Your task to perform on an android device: Is it going to rain this weekend? Image 0: 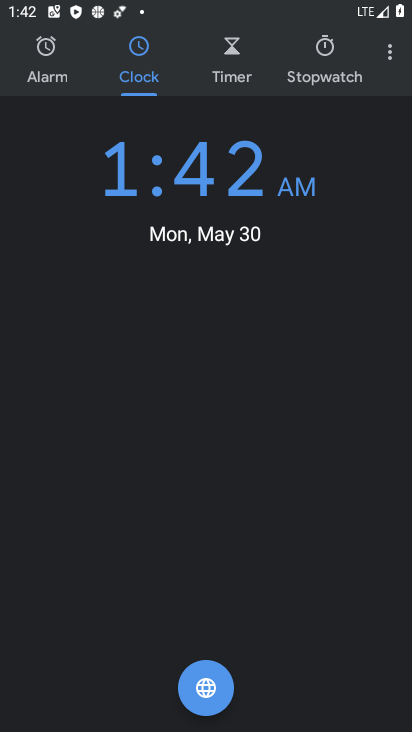
Step 0: press home button
Your task to perform on an android device: Is it going to rain this weekend? Image 1: 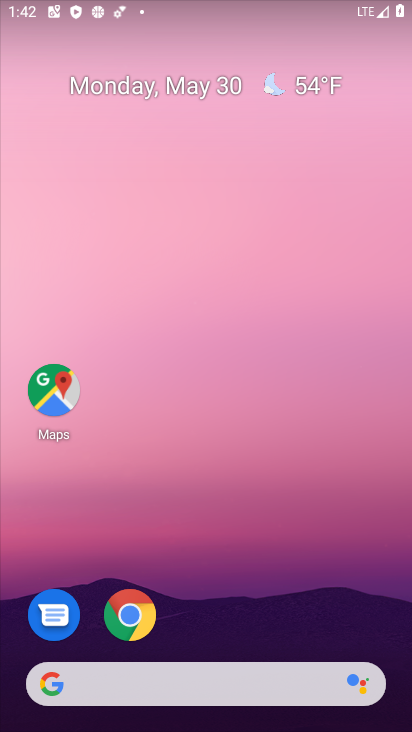
Step 1: click (324, 79)
Your task to perform on an android device: Is it going to rain this weekend? Image 2: 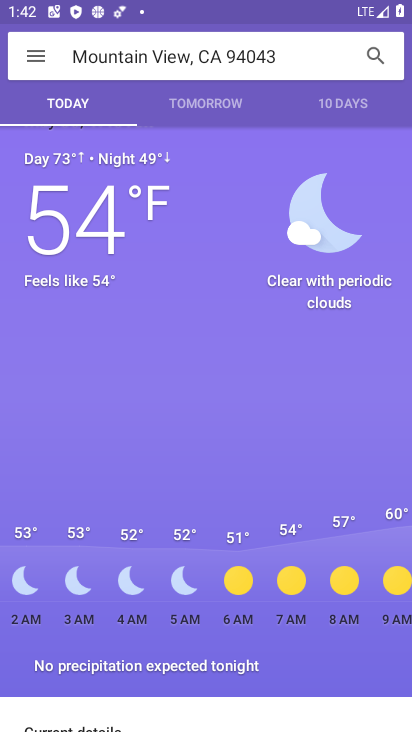
Step 2: click (340, 117)
Your task to perform on an android device: Is it going to rain this weekend? Image 3: 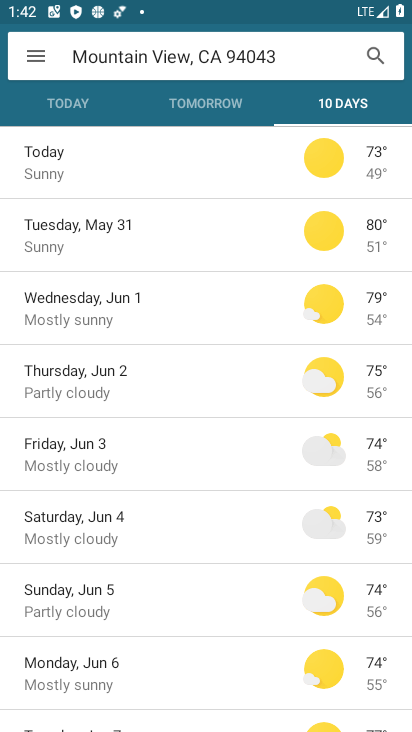
Step 3: task complete